Your task to perform on an android device: Check the news Image 0: 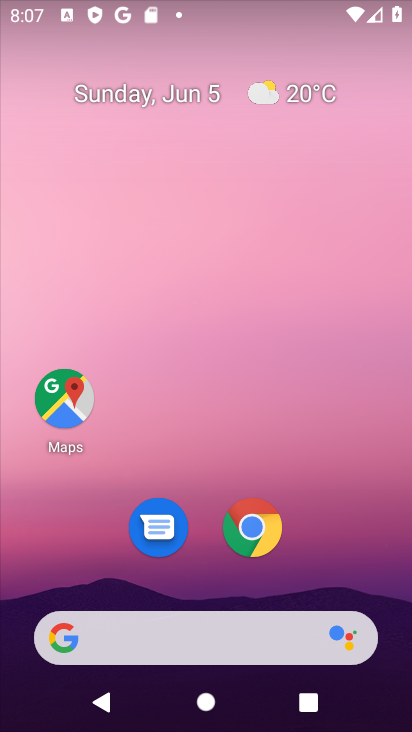
Step 0: click (220, 638)
Your task to perform on an android device: Check the news Image 1: 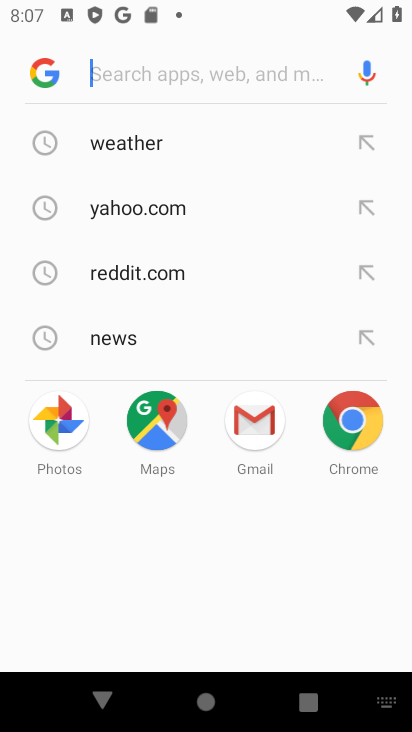
Step 1: click (134, 349)
Your task to perform on an android device: Check the news Image 2: 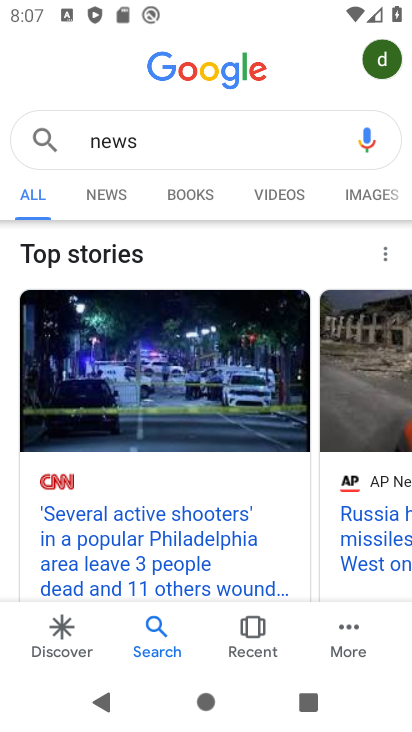
Step 2: task complete